Your task to perform on an android device: turn on priority inbox in the gmail app Image 0: 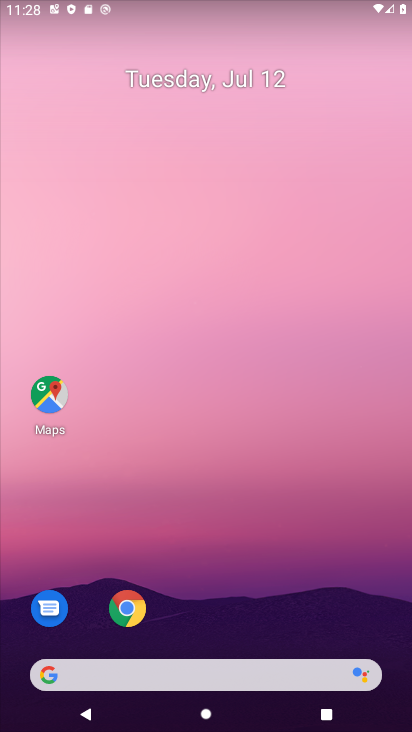
Step 0: drag from (223, 726) to (222, 142)
Your task to perform on an android device: turn on priority inbox in the gmail app Image 1: 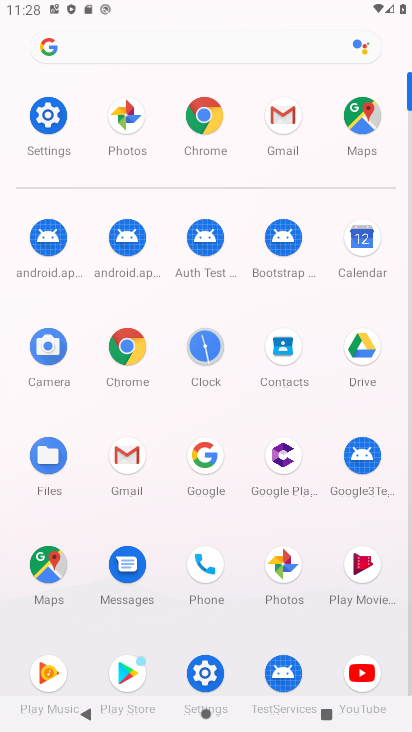
Step 1: click (133, 457)
Your task to perform on an android device: turn on priority inbox in the gmail app Image 2: 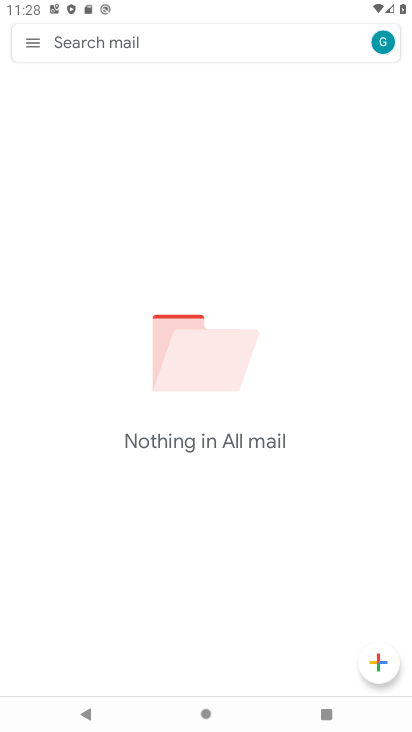
Step 2: click (28, 46)
Your task to perform on an android device: turn on priority inbox in the gmail app Image 3: 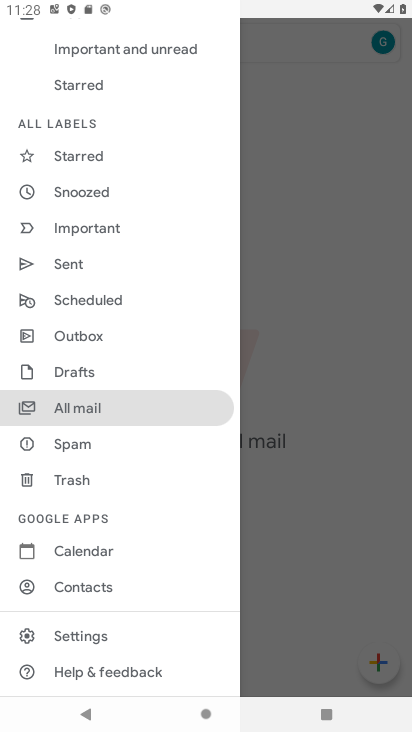
Step 3: click (93, 634)
Your task to perform on an android device: turn on priority inbox in the gmail app Image 4: 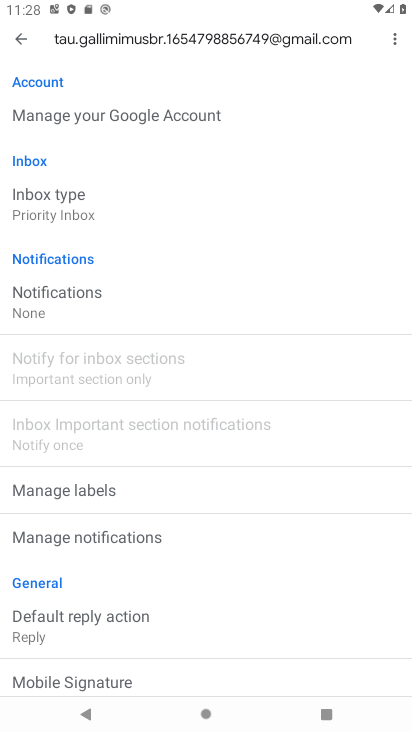
Step 4: task complete